Your task to perform on an android device: View the shopping cart on amazon.com. Search for apple airpods pro on amazon.com, select the first entry, and add it to the cart. Image 0: 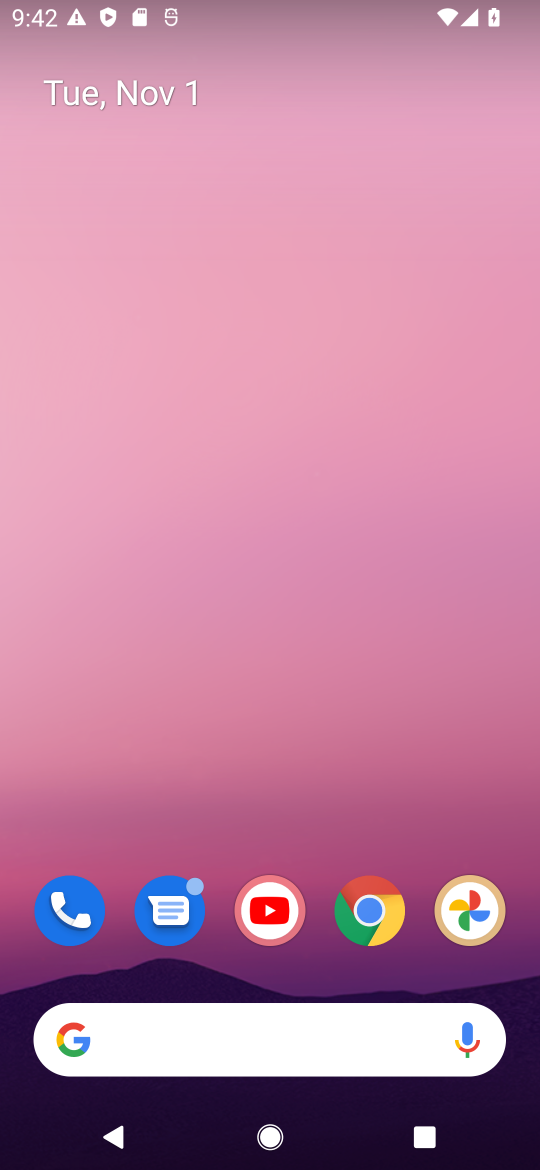
Step 0: click (370, 924)
Your task to perform on an android device: View the shopping cart on amazon.com. Search for apple airpods pro on amazon.com, select the first entry, and add it to the cart. Image 1: 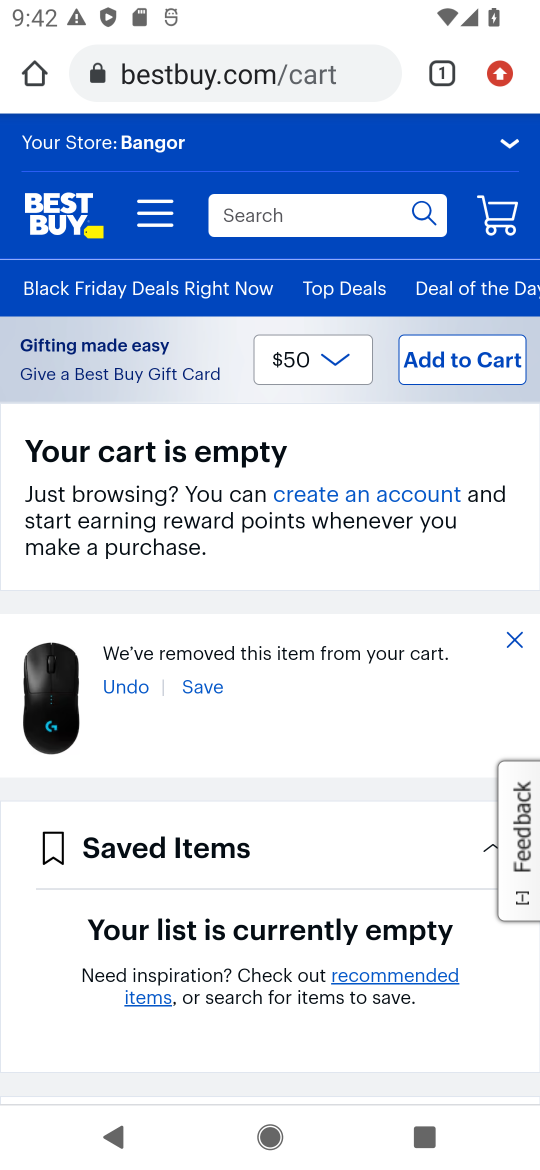
Step 1: click (214, 58)
Your task to perform on an android device: View the shopping cart on amazon.com. Search for apple airpods pro on amazon.com, select the first entry, and add it to the cart. Image 2: 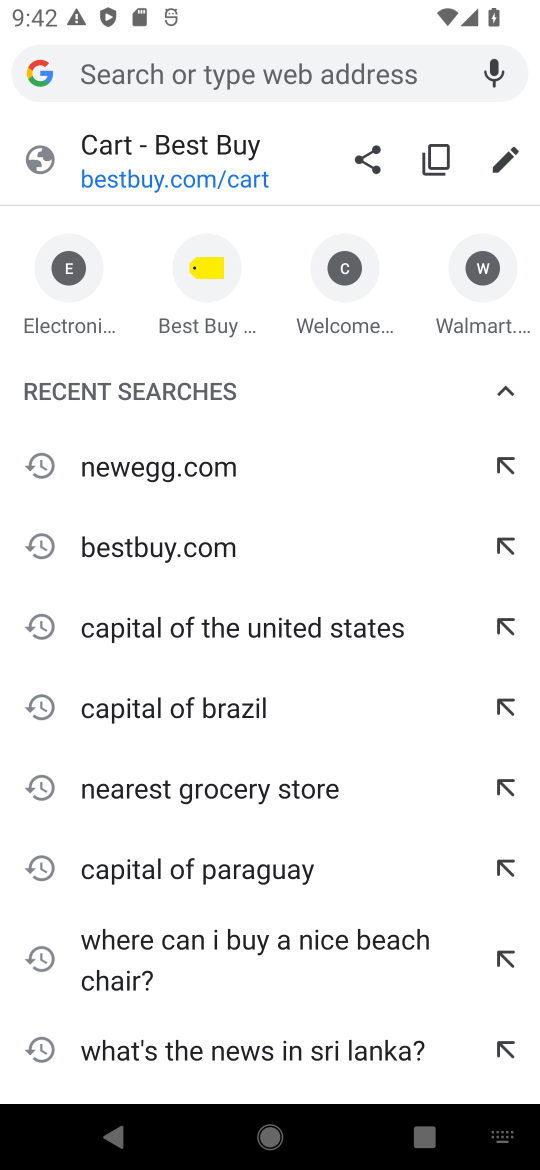
Step 2: type "amazon.com"
Your task to perform on an android device: View the shopping cart on amazon.com. Search for apple airpods pro on amazon.com, select the first entry, and add it to the cart. Image 3: 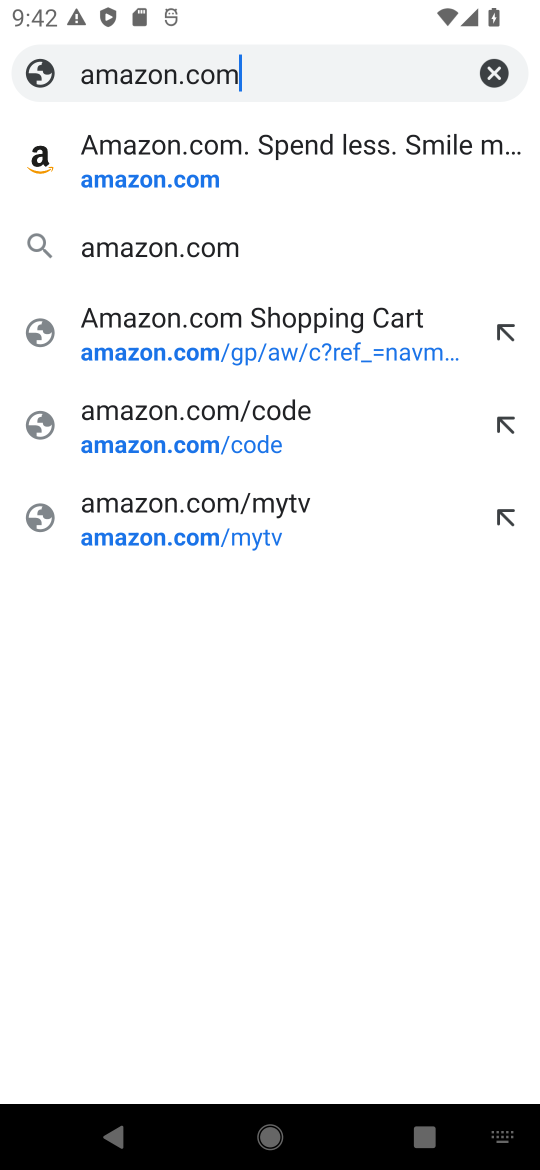
Step 3: click (184, 188)
Your task to perform on an android device: View the shopping cart on amazon.com. Search for apple airpods pro on amazon.com, select the first entry, and add it to the cart. Image 4: 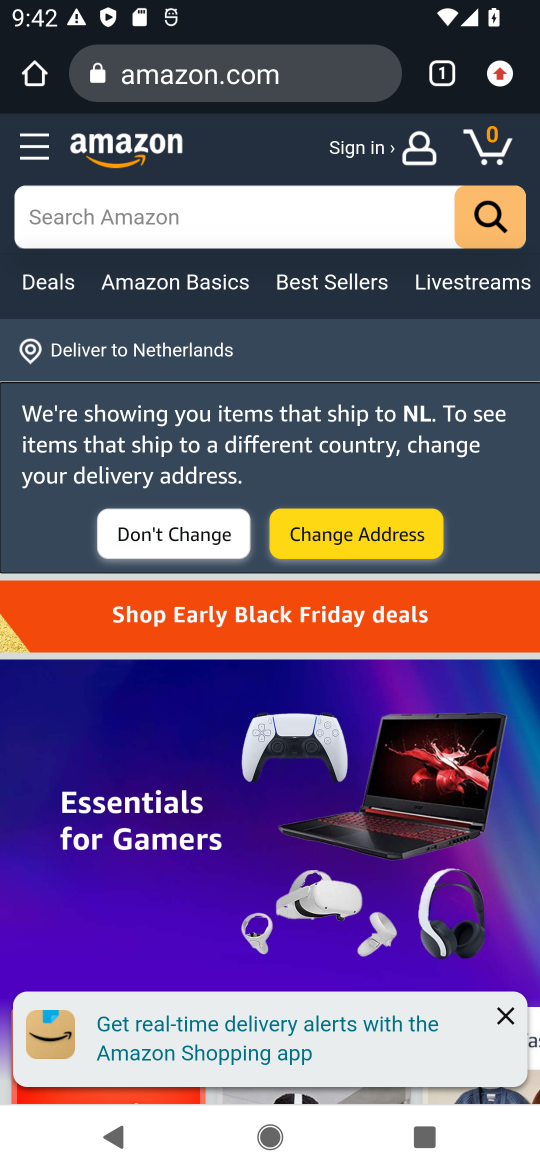
Step 4: click (491, 145)
Your task to perform on an android device: View the shopping cart on amazon.com. Search for apple airpods pro on amazon.com, select the first entry, and add it to the cart. Image 5: 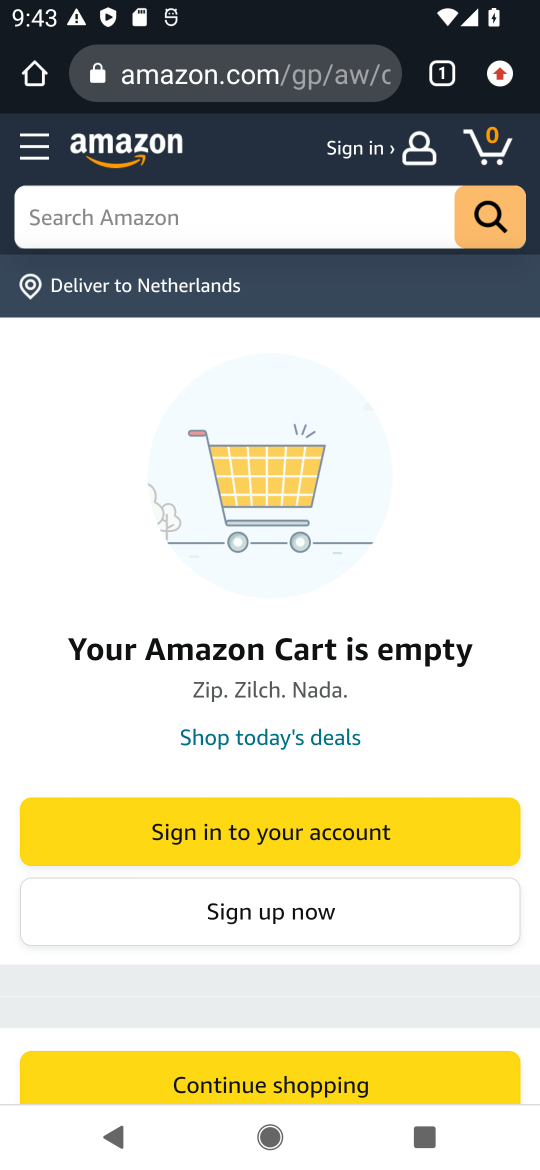
Step 5: click (197, 229)
Your task to perform on an android device: View the shopping cart on amazon.com. Search for apple airpods pro on amazon.com, select the first entry, and add it to the cart. Image 6: 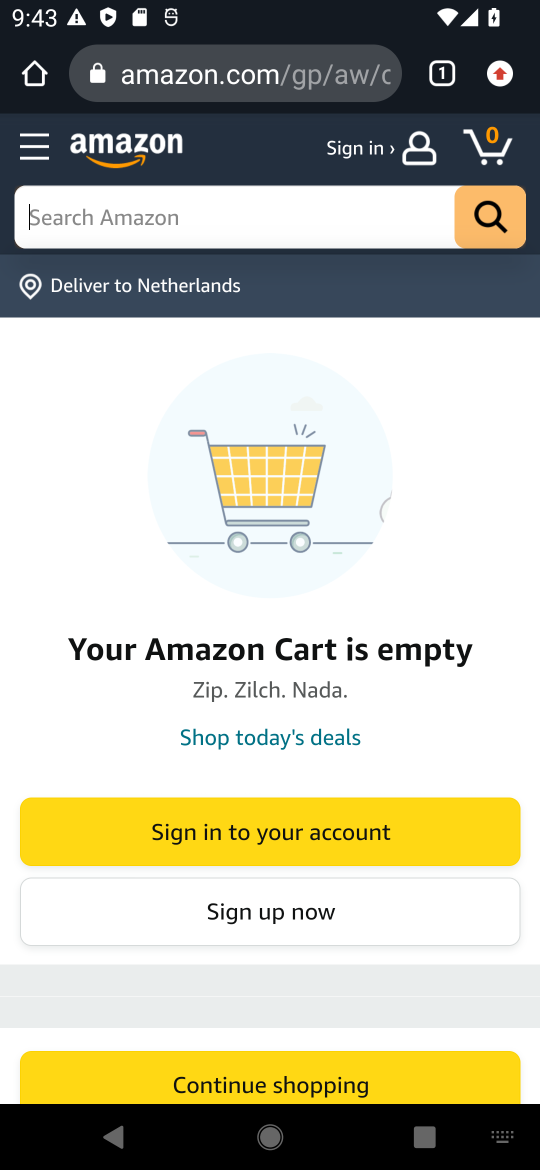
Step 6: type "apple airpods pro"
Your task to perform on an android device: View the shopping cart on amazon.com. Search for apple airpods pro on amazon.com, select the first entry, and add it to the cart. Image 7: 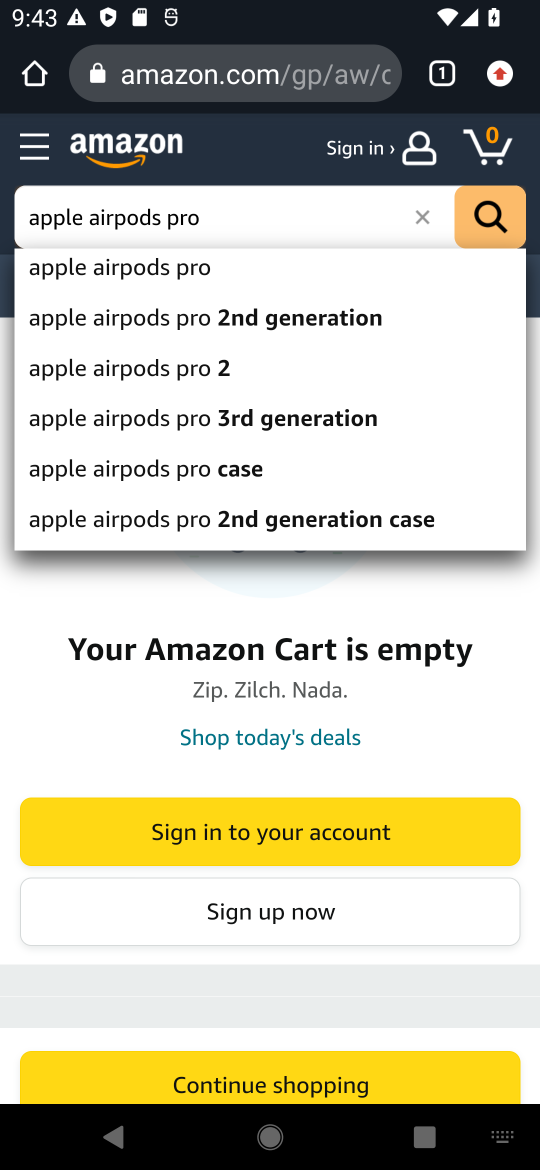
Step 7: click (84, 279)
Your task to perform on an android device: View the shopping cart on amazon.com. Search for apple airpods pro on amazon.com, select the first entry, and add it to the cart. Image 8: 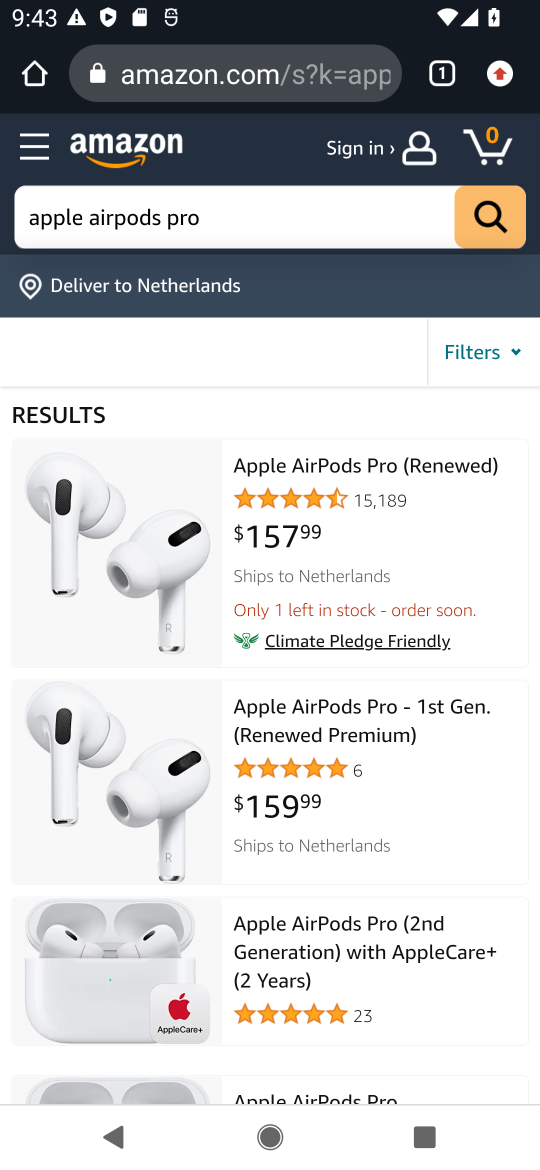
Step 8: click (271, 546)
Your task to perform on an android device: View the shopping cart on amazon.com. Search for apple airpods pro on amazon.com, select the first entry, and add it to the cart. Image 9: 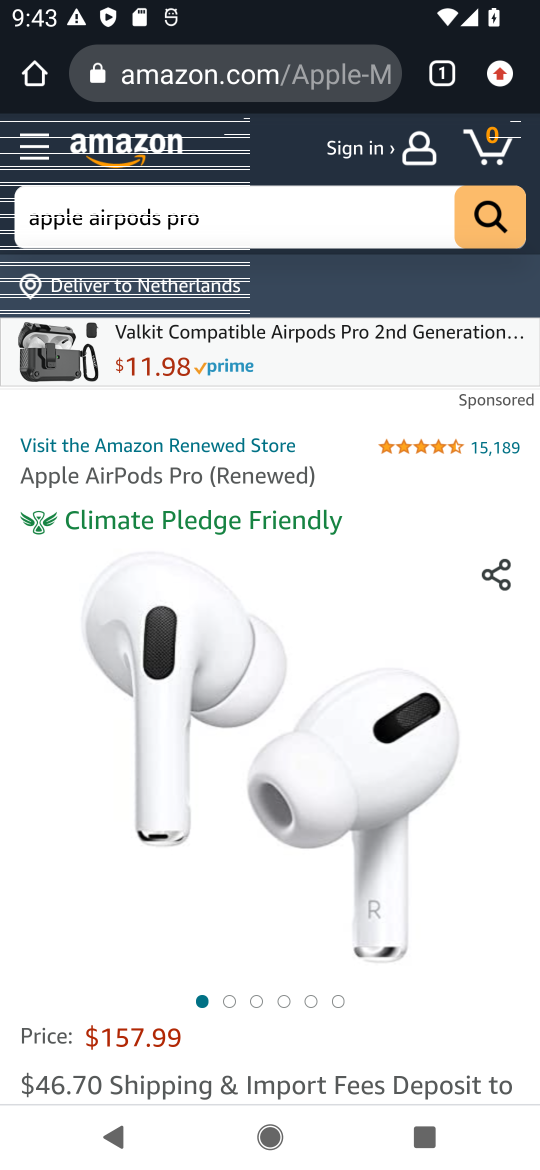
Step 9: drag from (290, 800) to (335, 310)
Your task to perform on an android device: View the shopping cart on amazon.com. Search for apple airpods pro on amazon.com, select the first entry, and add it to the cart. Image 10: 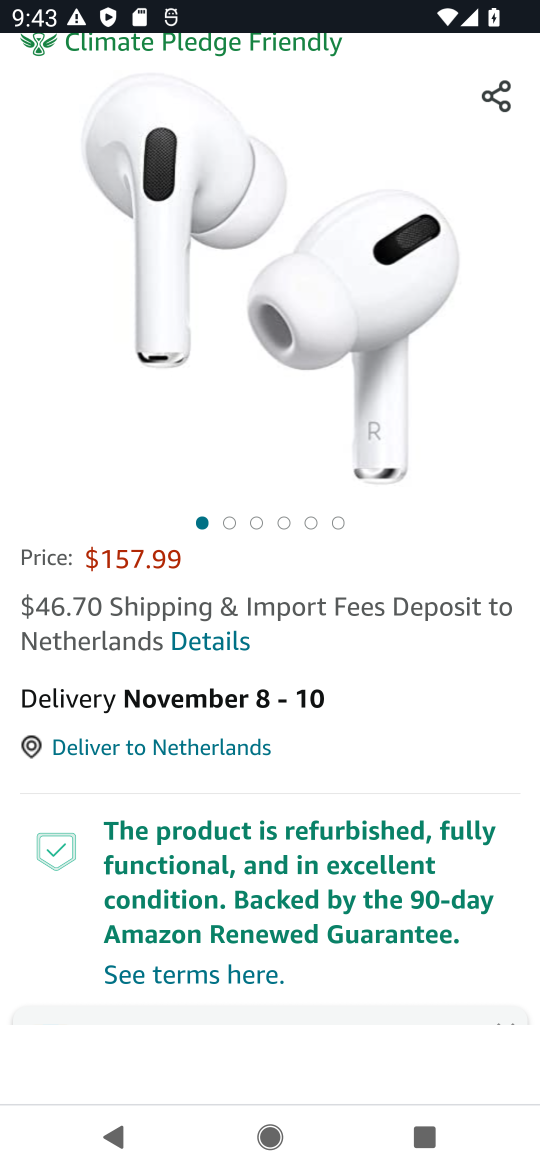
Step 10: drag from (348, 796) to (338, 368)
Your task to perform on an android device: View the shopping cart on amazon.com. Search for apple airpods pro on amazon.com, select the first entry, and add it to the cart. Image 11: 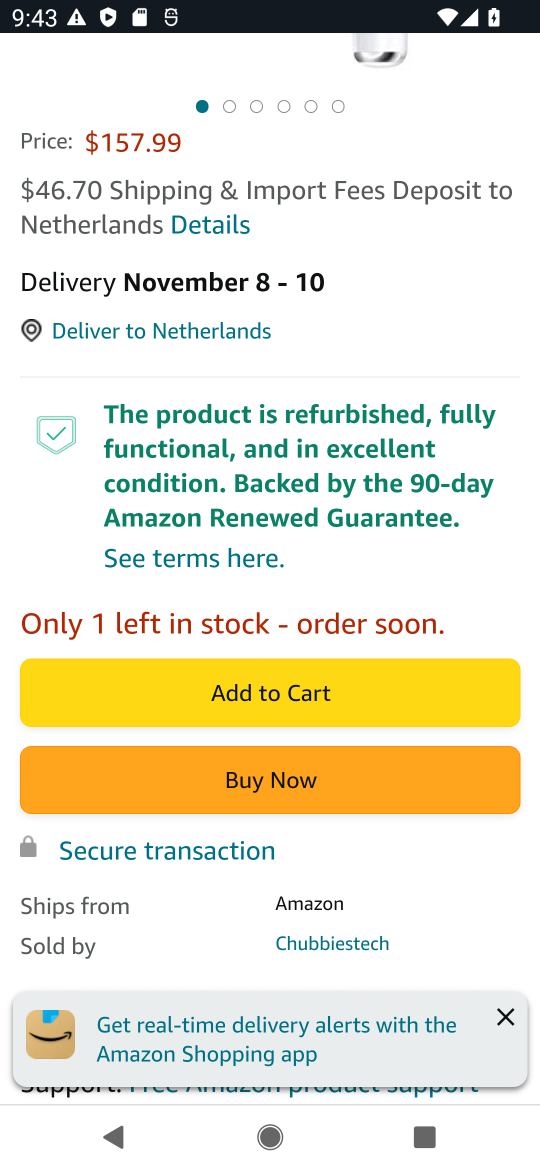
Step 11: click (255, 695)
Your task to perform on an android device: View the shopping cart on amazon.com. Search for apple airpods pro on amazon.com, select the first entry, and add it to the cart. Image 12: 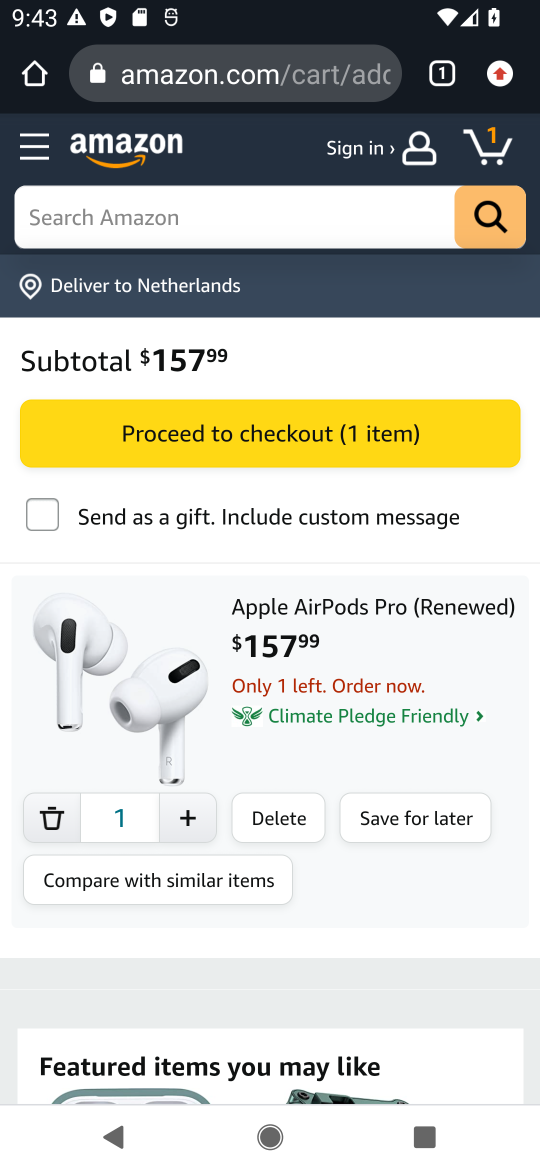
Step 12: task complete